Your task to perform on an android device: Open calendar and show me the fourth week of next month Image 0: 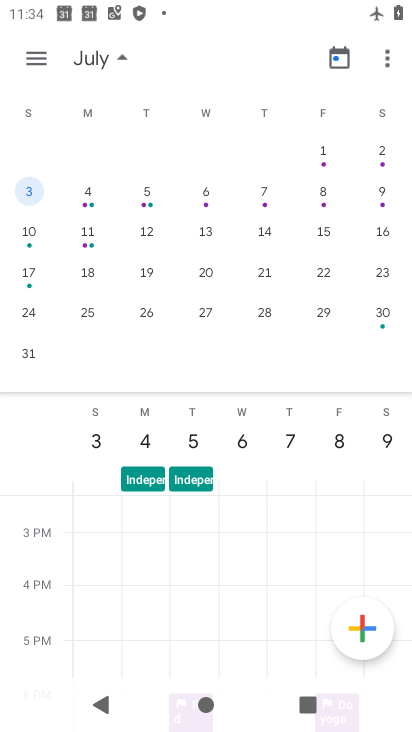
Step 0: click (21, 315)
Your task to perform on an android device: Open calendar and show me the fourth week of next month Image 1: 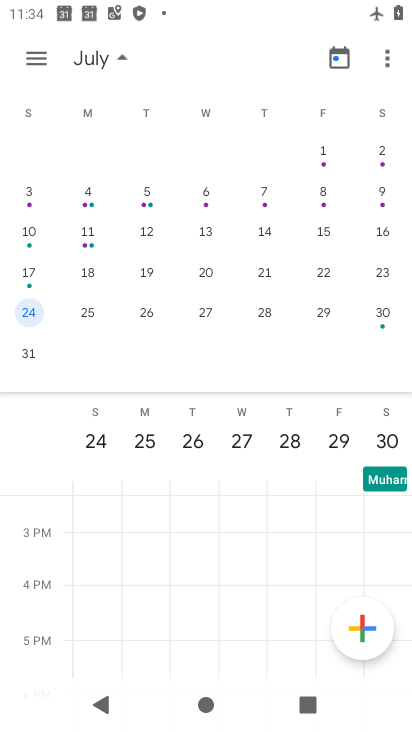
Step 1: task complete